Your task to perform on an android device: turn notification dots off Image 0: 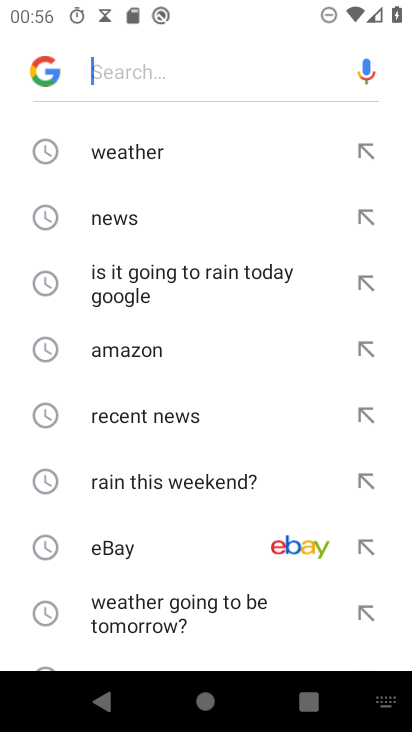
Step 0: press home button
Your task to perform on an android device: turn notification dots off Image 1: 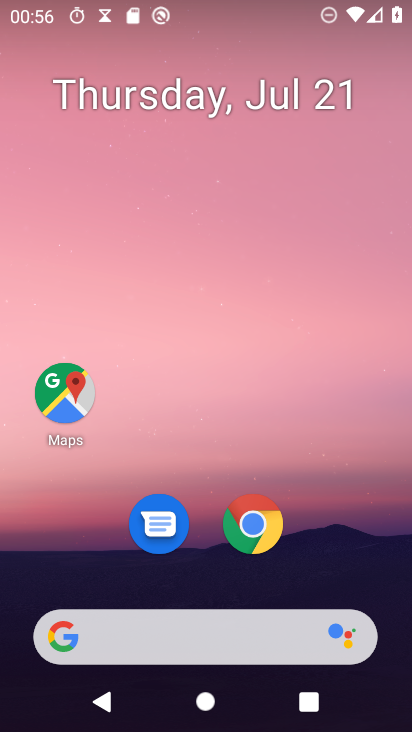
Step 1: drag from (199, 631) to (314, 173)
Your task to perform on an android device: turn notification dots off Image 2: 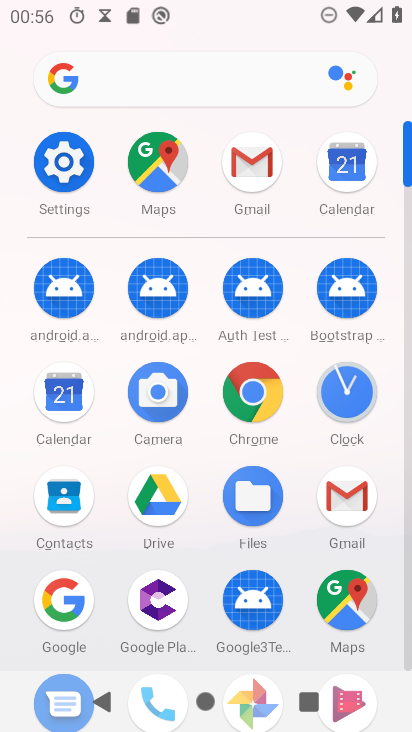
Step 2: click (69, 162)
Your task to perform on an android device: turn notification dots off Image 3: 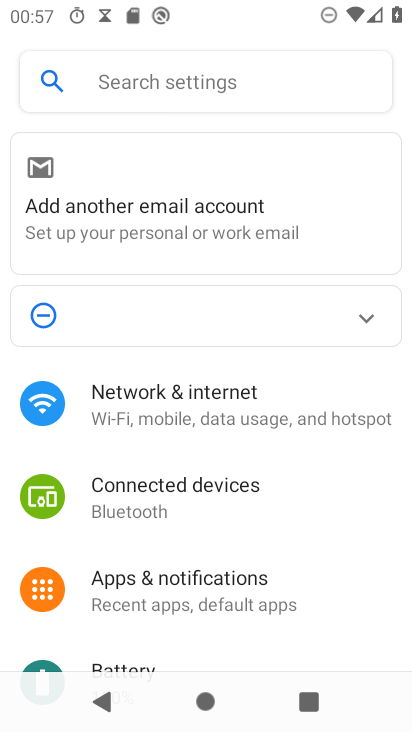
Step 3: click (184, 586)
Your task to perform on an android device: turn notification dots off Image 4: 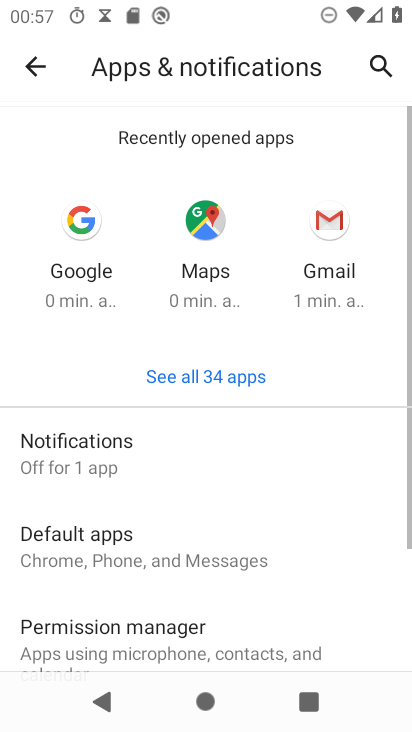
Step 4: click (107, 458)
Your task to perform on an android device: turn notification dots off Image 5: 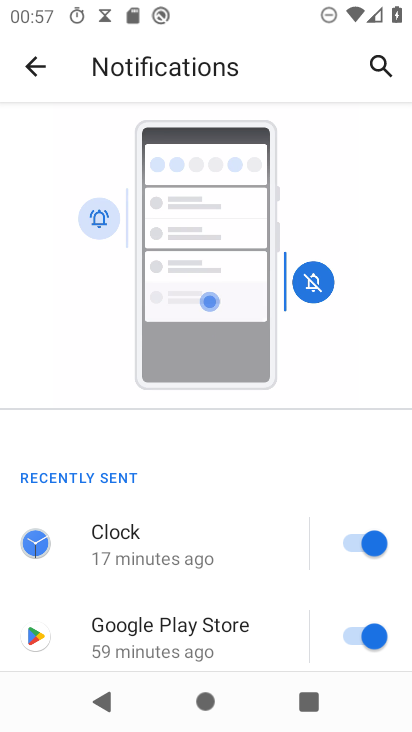
Step 5: drag from (289, 630) to (315, 69)
Your task to perform on an android device: turn notification dots off Image 6: 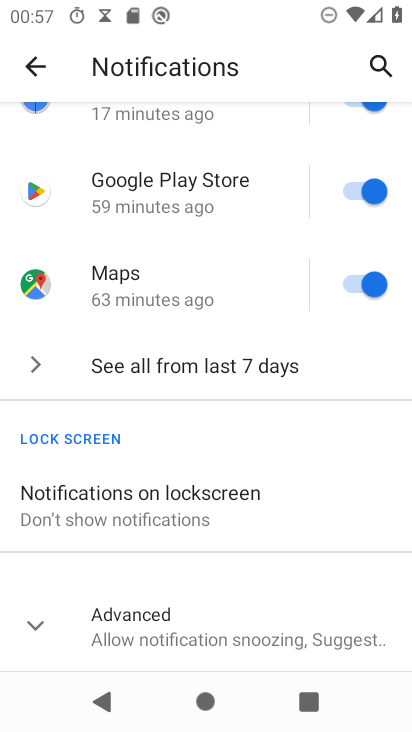
Step 6: click (166, 618)
Your task to perform on an android device: turn notification dots off Image 7: 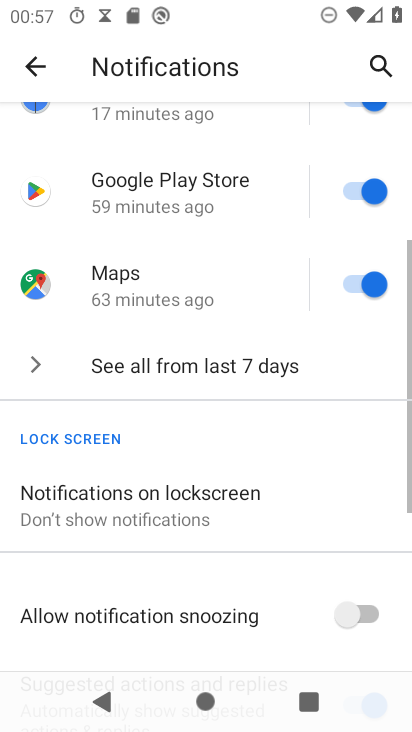
Step 7: drag from (225, 582) to (293, 31)
Your task to perform on an android device: turn notification dots off Image 8: 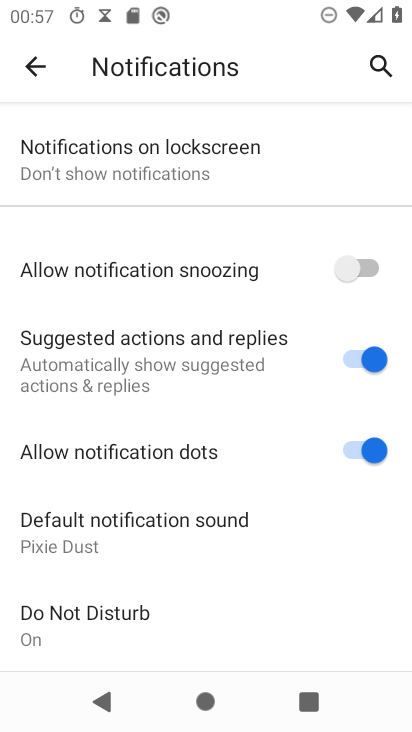
Step 8: click (354, 452)
Your task to perform on an android device: turn notification dots off Image 9: 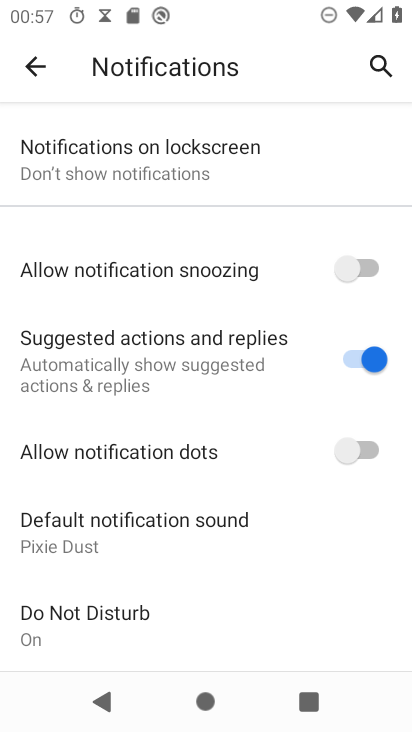
Step 9: task complete